Your task to perform on an android device: find which apps use the phone's location Image 0: 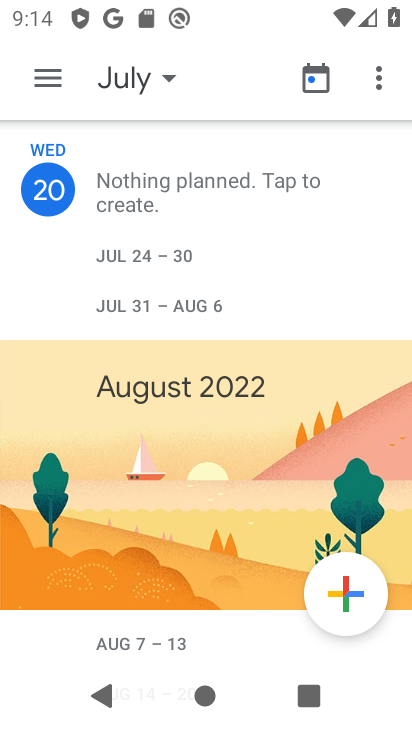
Step 0: press home button
Your task to perform on an android device: find which apps use the phone's location Image 1: 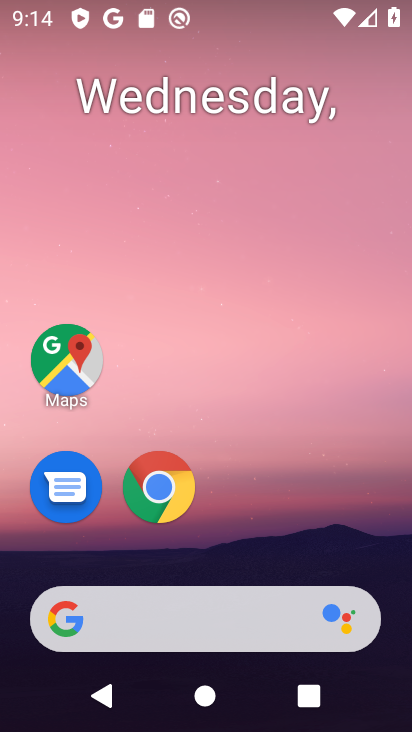
Step 1: drag from (229, 515) to (209, 222)
Your task to perform on an android device: find which apps use the phone's location Image 2: 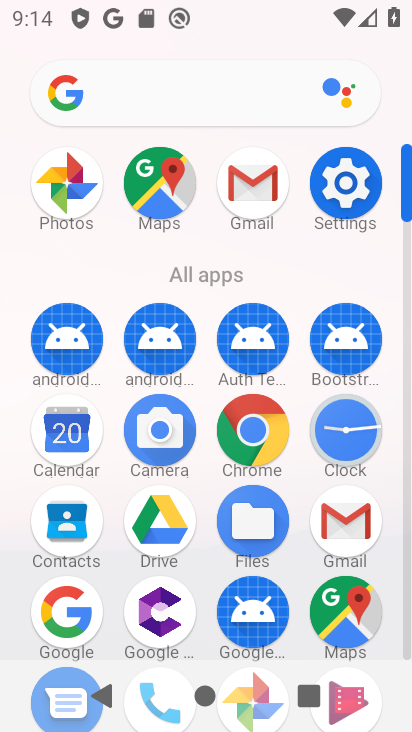
Step 2: click (334, 192)
Your task to perform on an android device: find which apps use the phone's location Image 3: 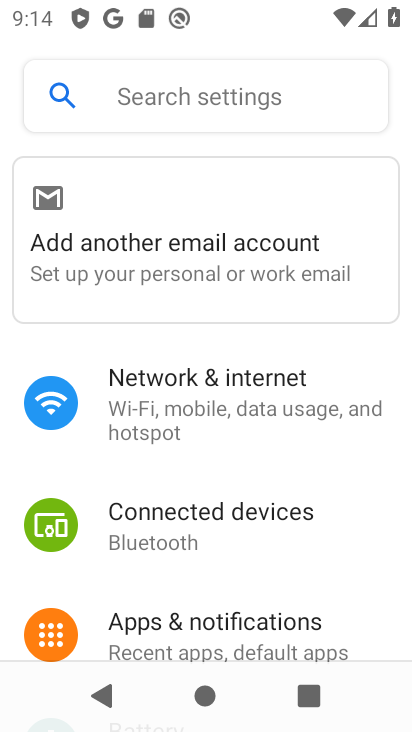
Step 3: drag from (178, 621) to (159, 231)
Your task to perform on an android device: find which apps use the phone's location Image 4: 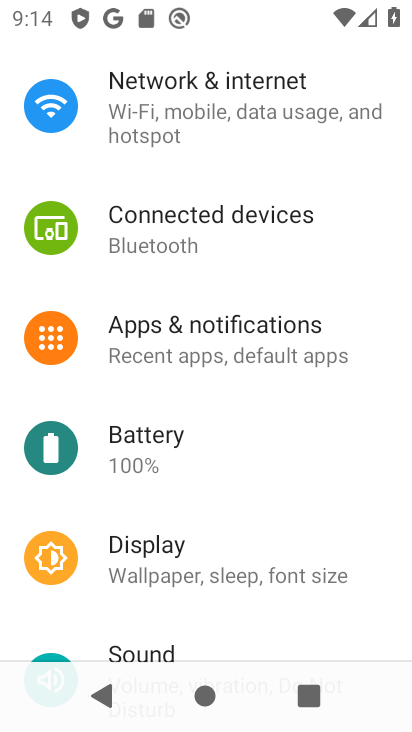
Step 4: drag from (186, 625) to (184, 295)
Your task to perform on an android device: find which apps use the phone's location Image 5: 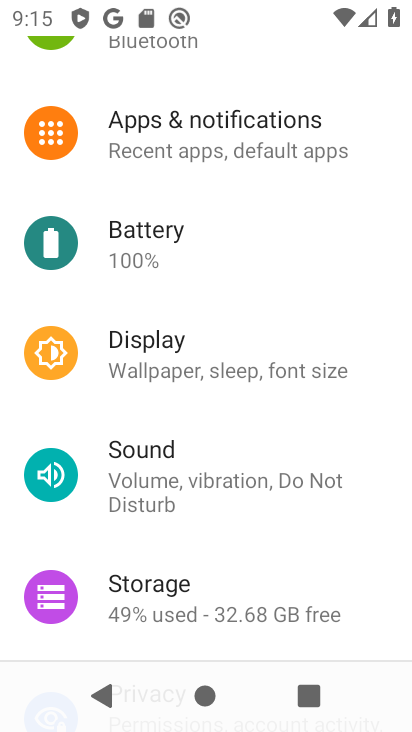
Step 5: drag from (184, 591) to (176, 319)
Your task to perform on an android device: find which apps use the phone's location Image 6: 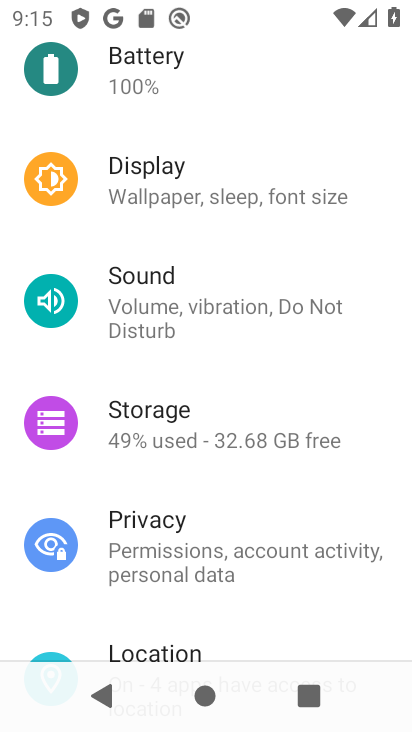
Step 6: click (169, 651)
Your task to perform on an android device: find which apps use the phone's location Image 7: 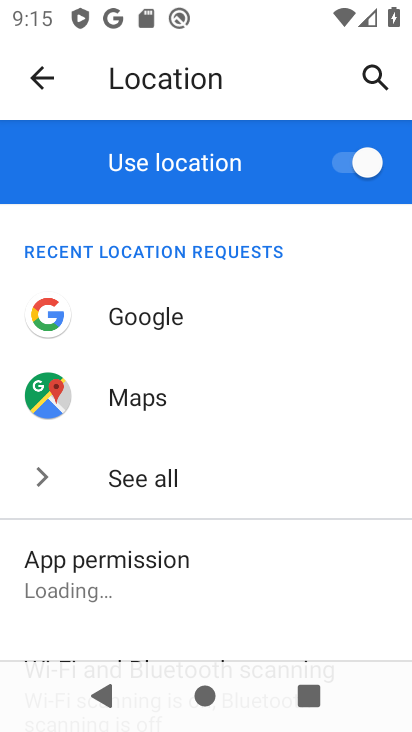
Step 7: click (103, 576)
Your task to perform on an android device: find which apps use the phone's location Image 8: 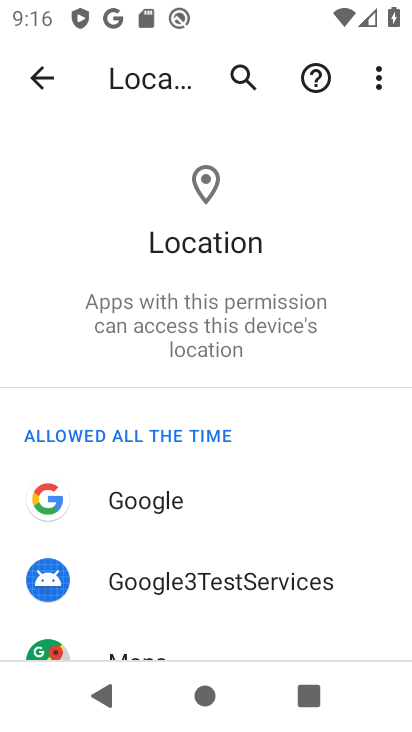
Step 8: task complete